Your task to perform on an android device: turn on notifications settings in the gmail app Image 0: 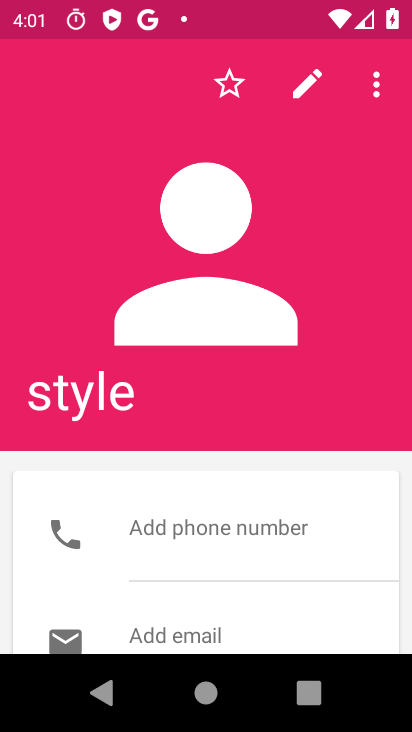
Step 0: press home button
Your task to perform on an android device: turn on notifications settings in the gmail app Image 1: 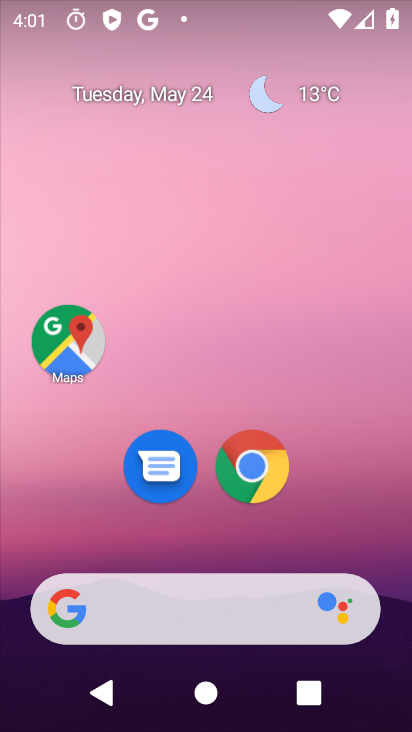
Step 1: drag from (371, 467) to (288, 132)
Your task to perform on an android device: turn on notifications settings in the gmail app Image 2: 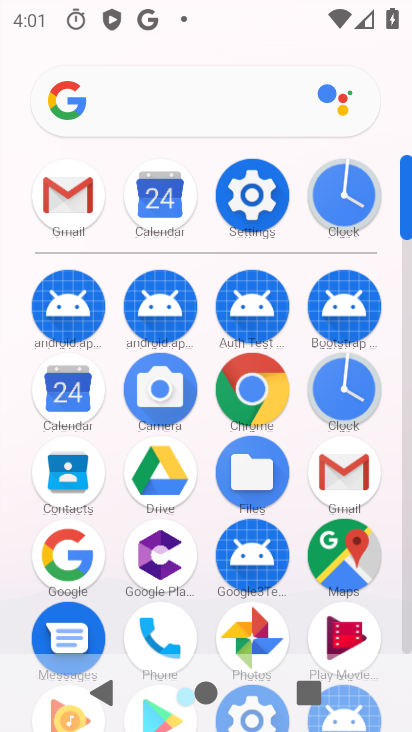
Step 2: click (352, 480)
Your task to perform on an android device: turn on notifications settings in the gmail app Image 3: 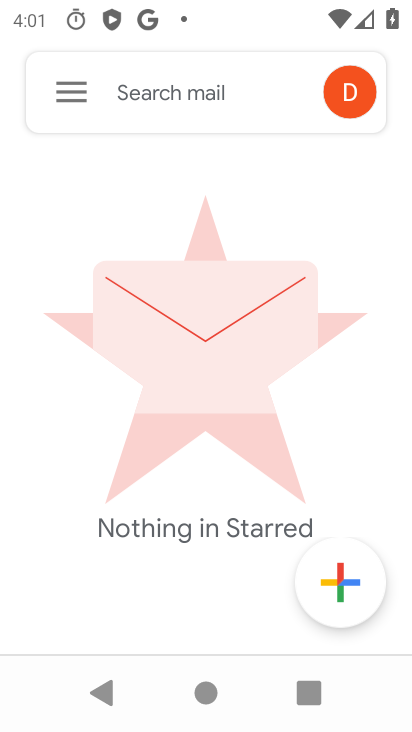
Step 3: click (71, 99)
Your task to perform on an android device: turn on notifications settings in the gmail app Image 4: 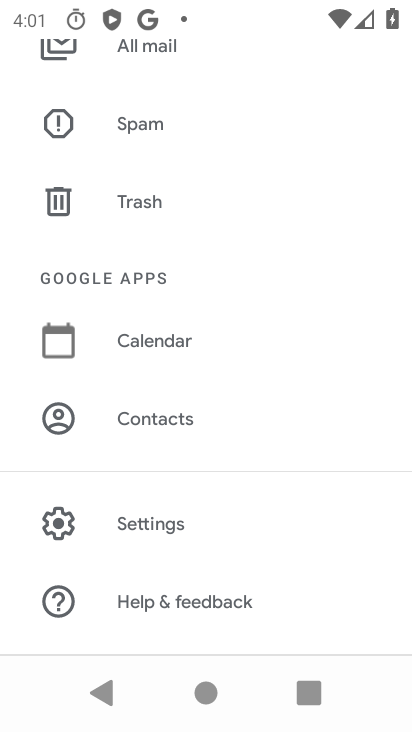
Step 4: click (152, 504)
Your task to perform on an android device: turn on notifications settings in the gmail app Image 5: 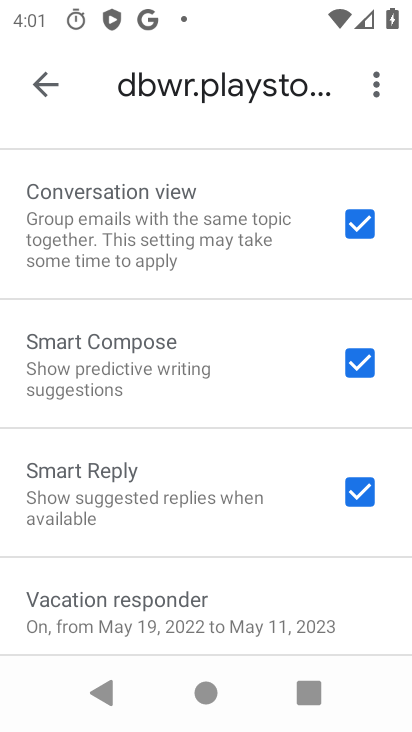
Step 5: drag from (178, 208) to (174, 593)
Your task to perform on an android device: turn on notifications settings in the gmail app Image 6: 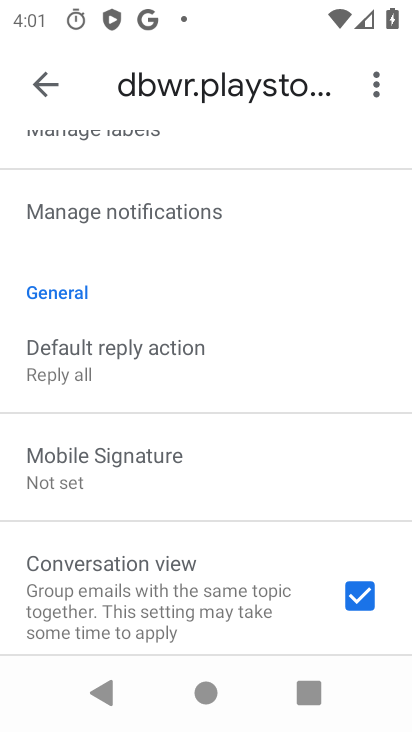
Step 6: drag from (165, 195) to (174, 503)
Your task to perform on an android device: turn on notifications settings in the gmail app Image 7: 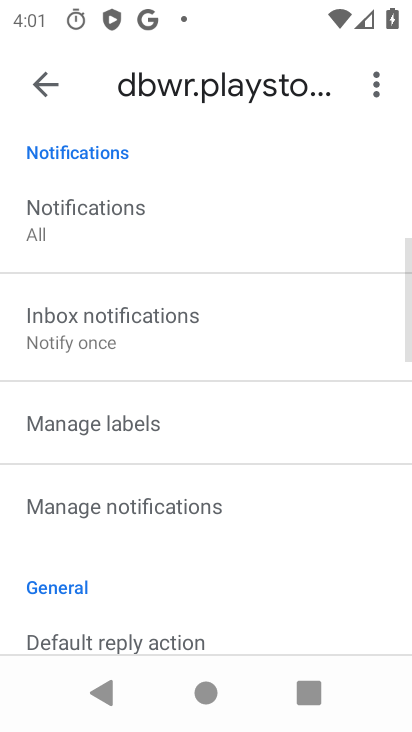
Step 7: click (174, 503)
Your task to perform on an android device: turn on notifications settings in the gmail app Image 8: 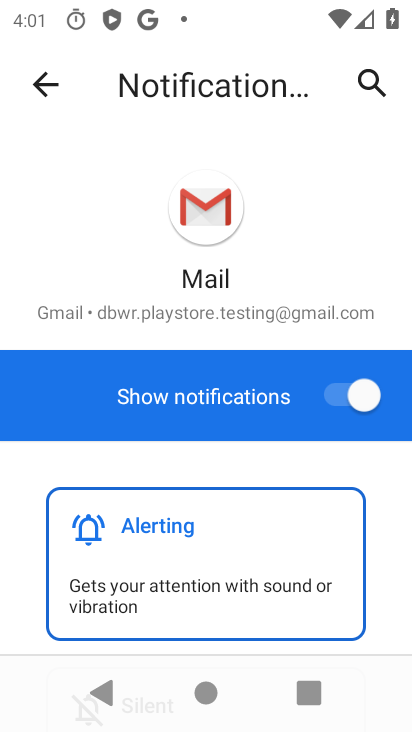
Step 8: task complete